Your task to perform on an android device: Open Youtube and go to "Your channel" Image 0: 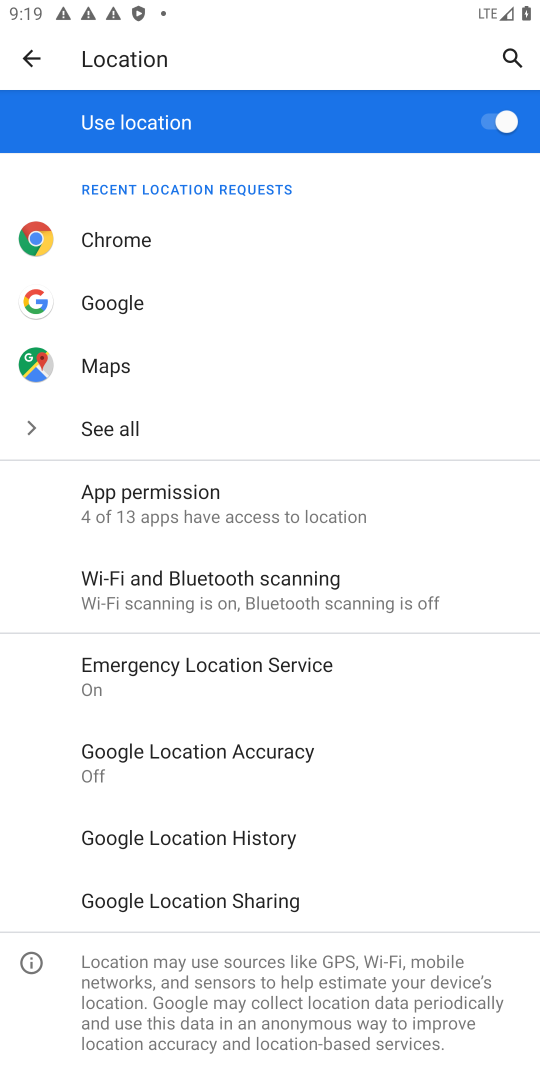
Step 0: press home button
Your task to perform on an android device: Open Youtube and go to "Your channel" Image 1: 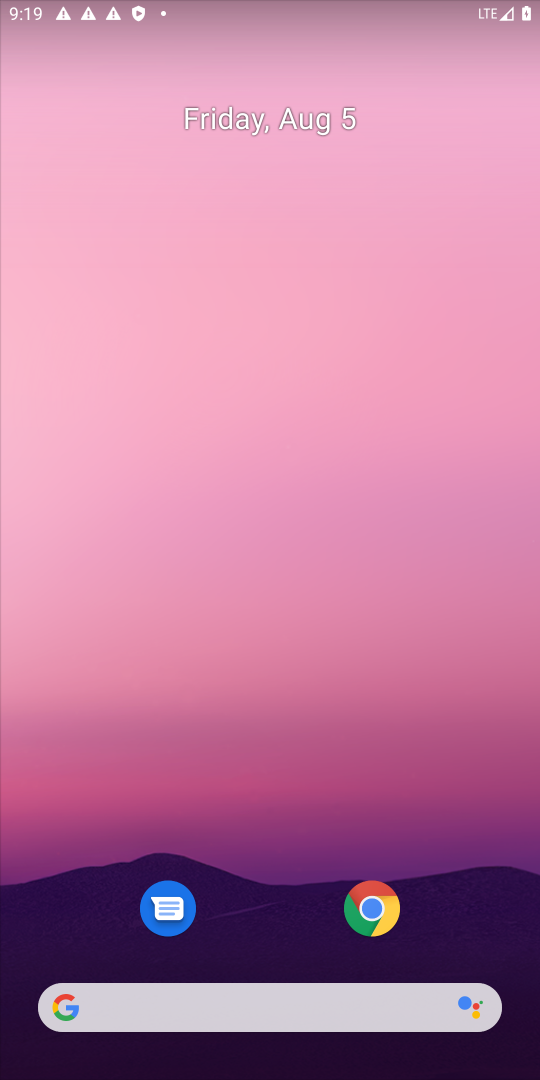
Step 1: drag from (271, 871) to (259, 147)
Your task to perform on an android device: Open Youtube and go to "Your channel" Image 2: 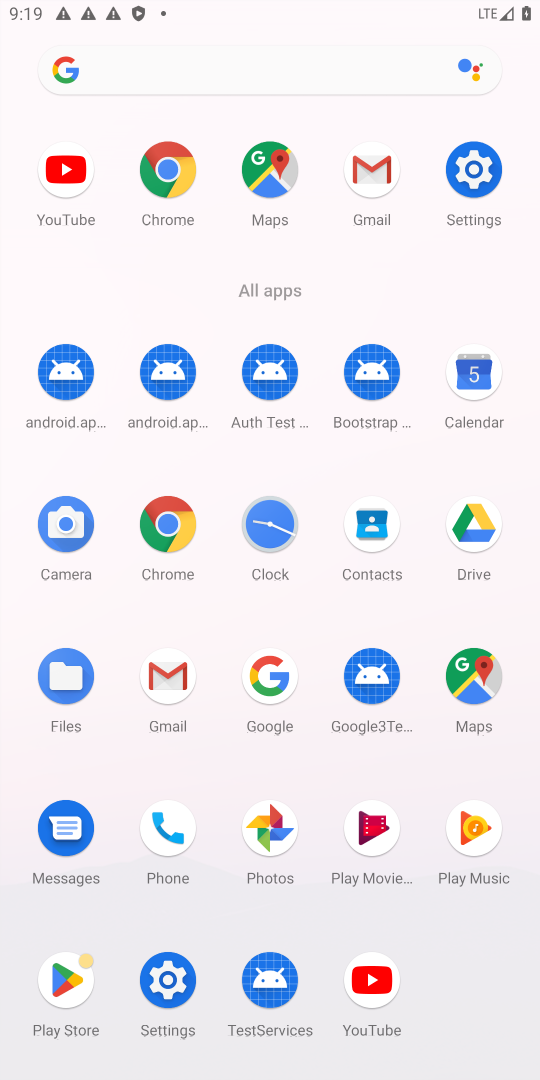
Step 2: click (349, 984)
Your task to perform on an android device: Open Youtube and go to "Your channel" Image 3: 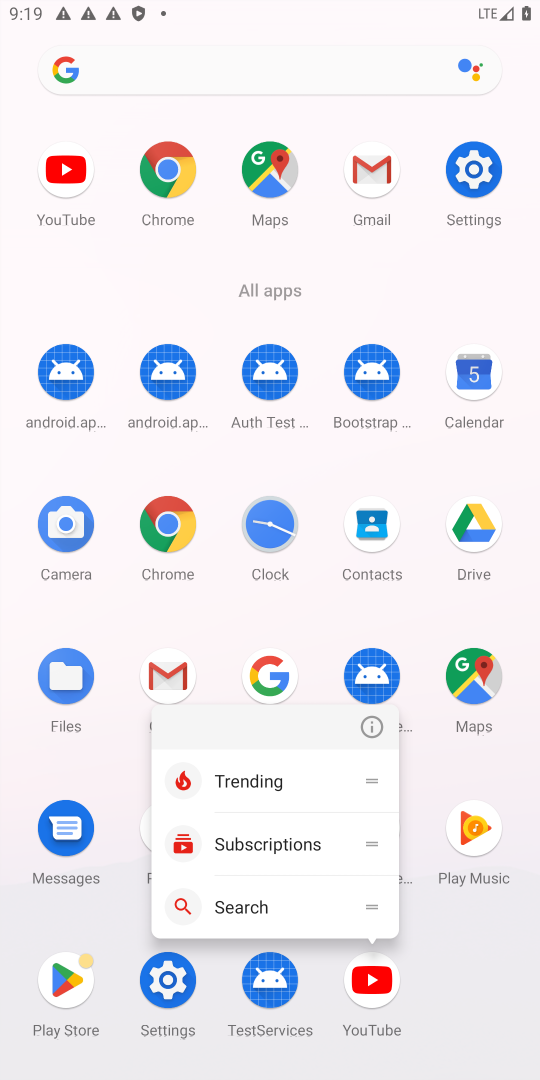
Step 3: click (376, 987)
Your task to perform on an android device: Open Youtube and go to "Your channel" Image 4: 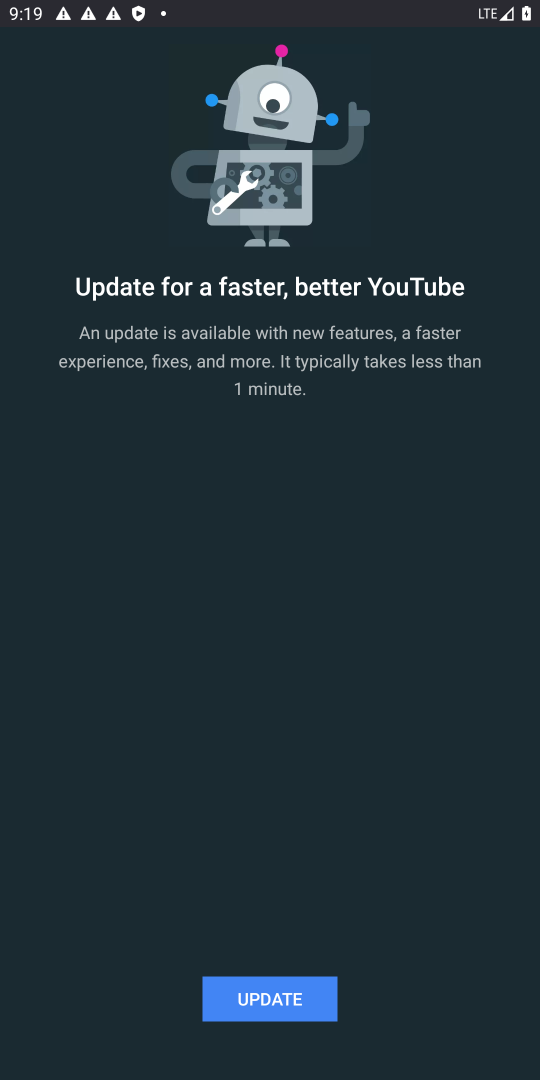
Step 4: click (240, 1010)
Your task to perform on an android device: Open Youtube and go to "Your channel" Image 5: 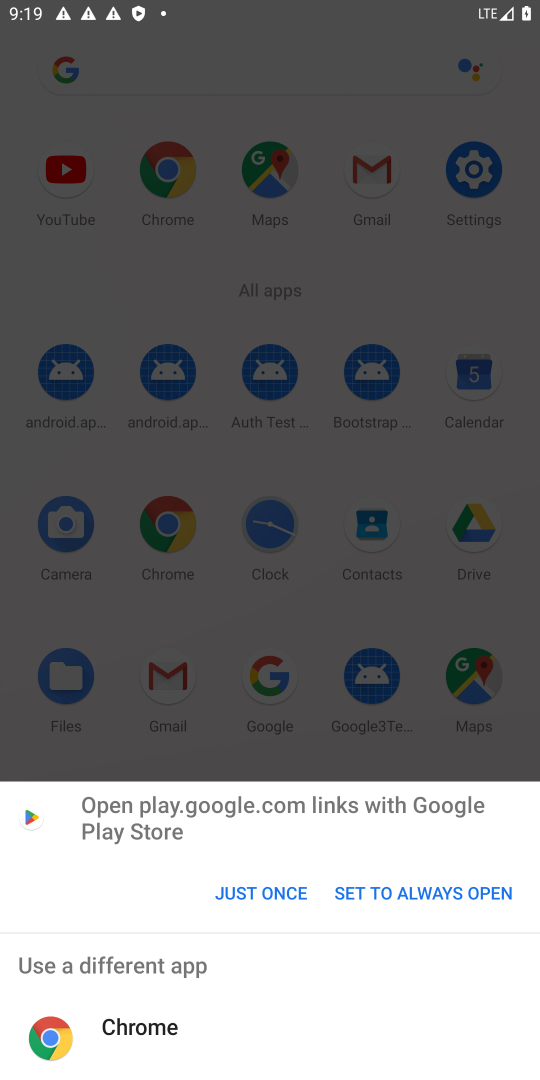
Step 5: click (257, 891)
Your task to perform on an android device: Open Youtube and go to "Your channel" Image 6: 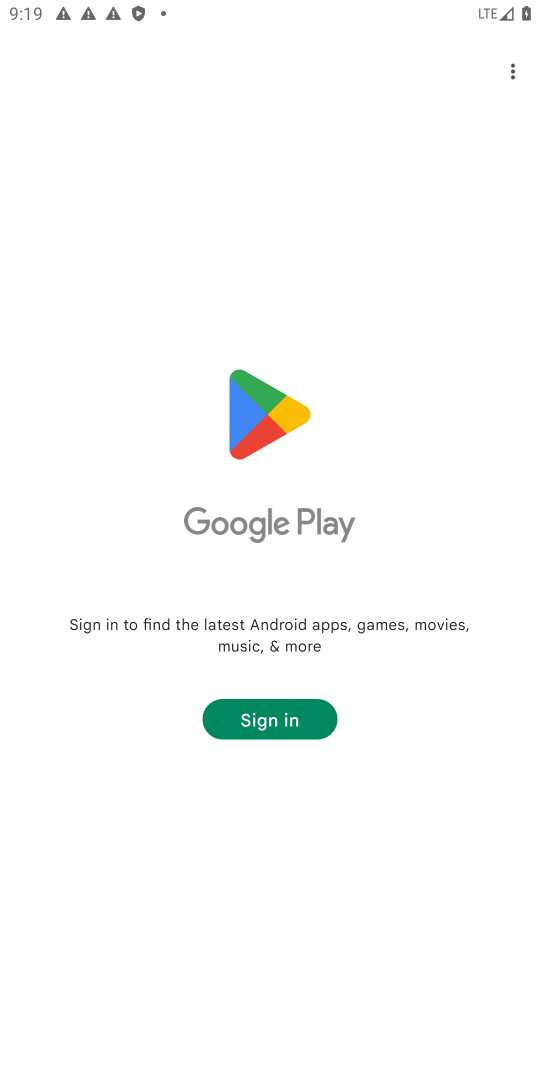
Step 6: task complete